Your task to perform on an android device: open app "Adobe Express: Graphic Design" Image 0: 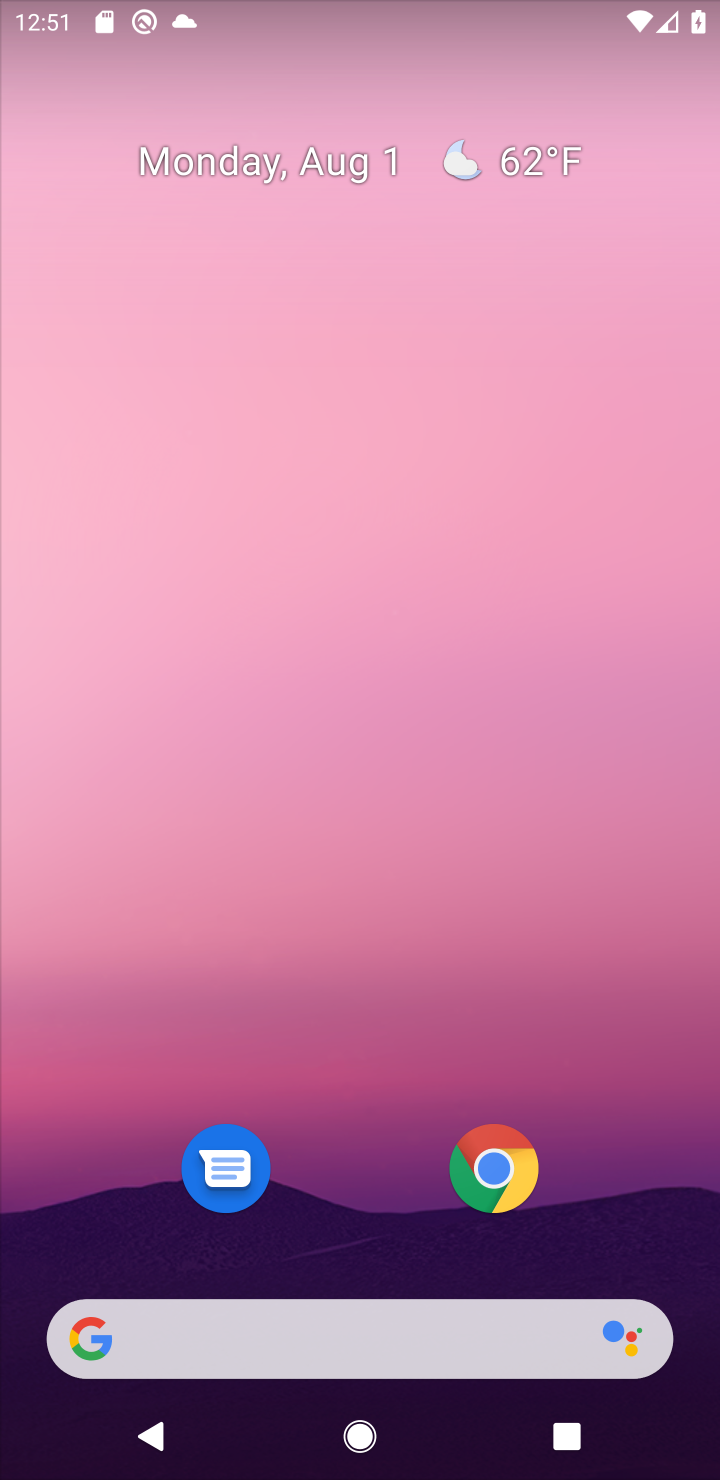
Step 0: press home button
Your task to perform on an android device: open app "Adobe Express: Graphic Design" Image 1: 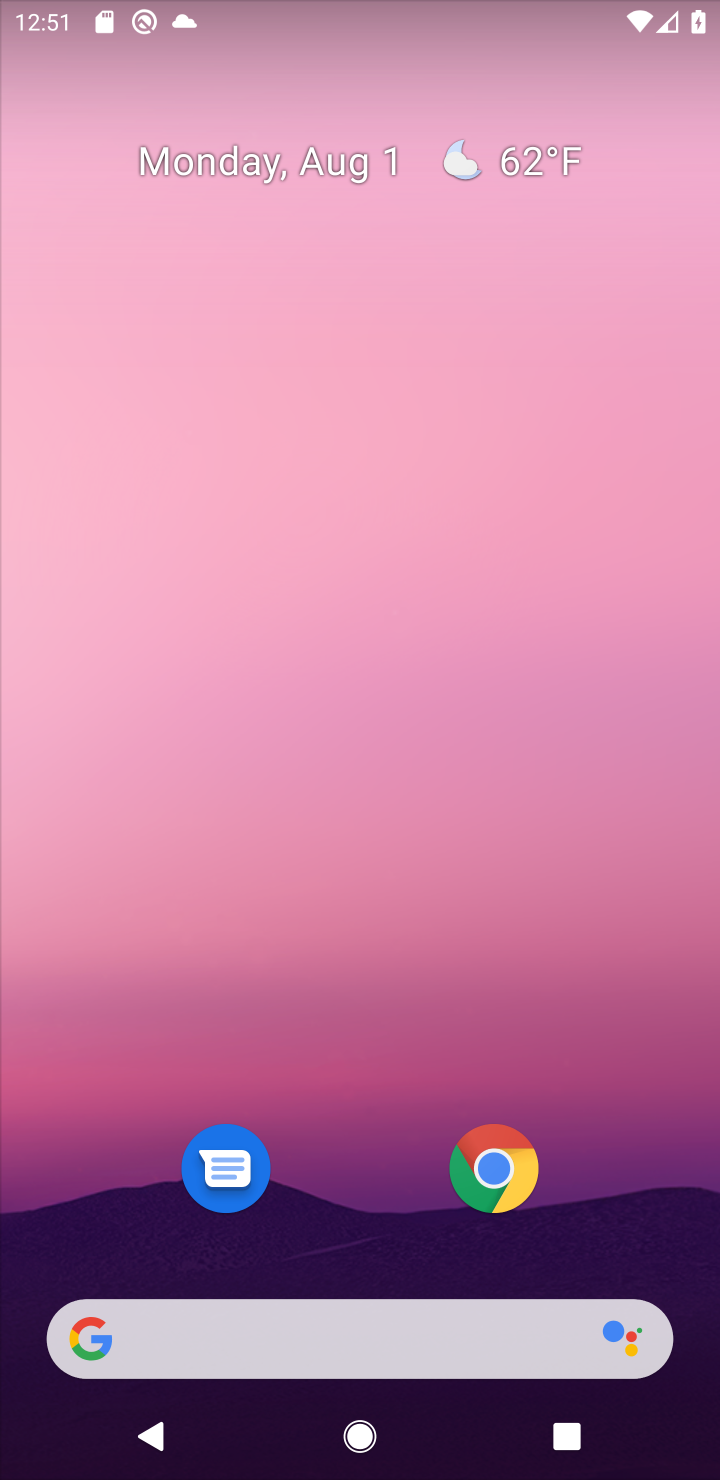
Step 1: drag from (401, 1465) to (403, 598)
Your task to perform on an android device: open app "Adobe Express: Graphic Design" Image 2: 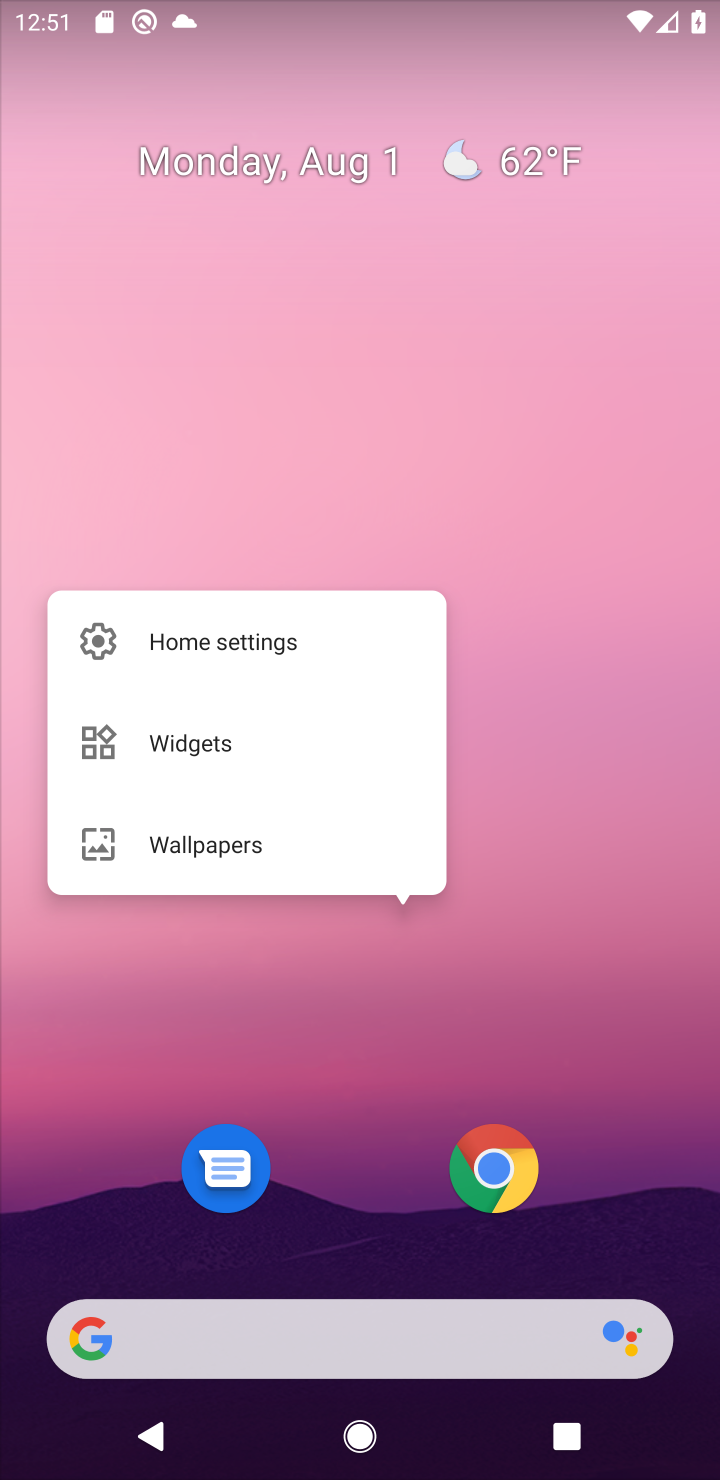
Step 2: press home button
Your task to perform on an android device: open app "Adobe Express: Graphic Design" Image 3: 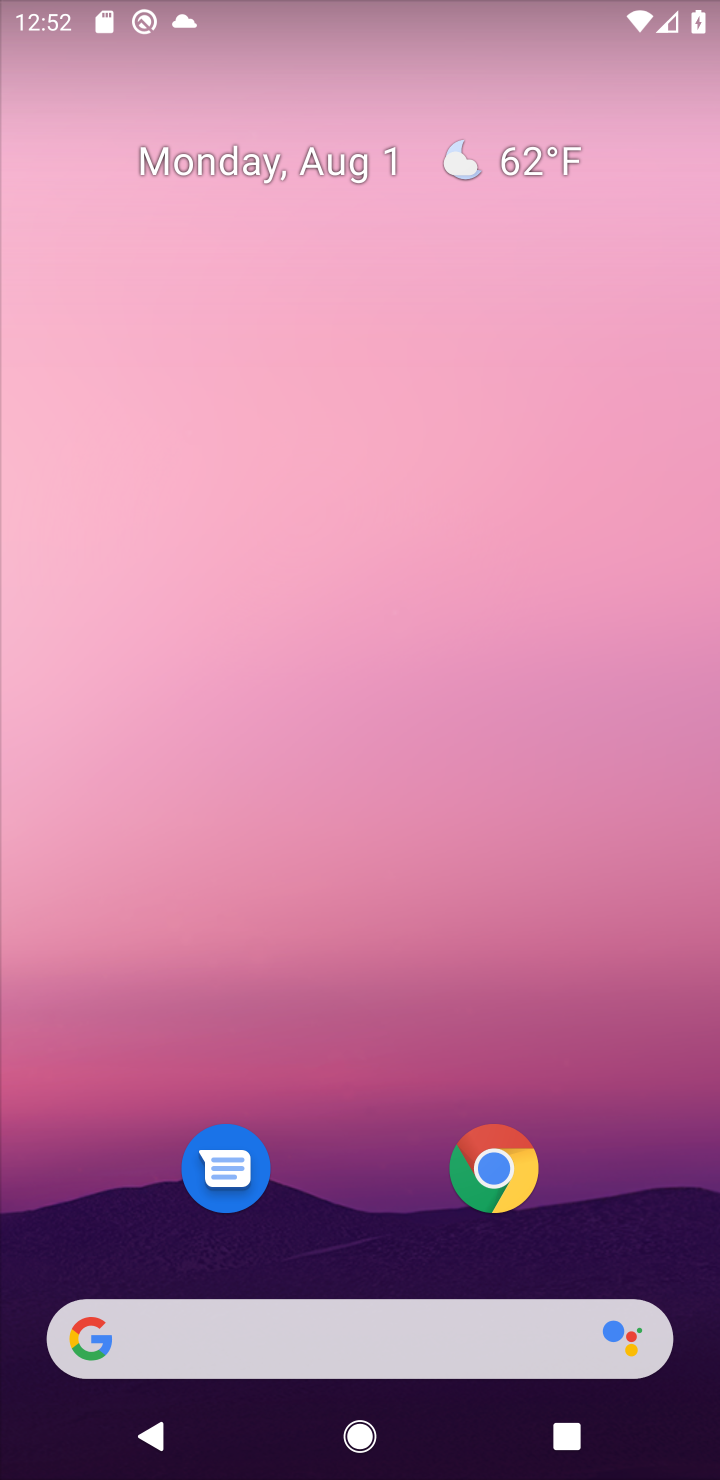
Step 3: drag from (394, 1455) to (337, 324)
Your task to perform on an android device: open app "Adobe Express: Graphic Design" Image 4: 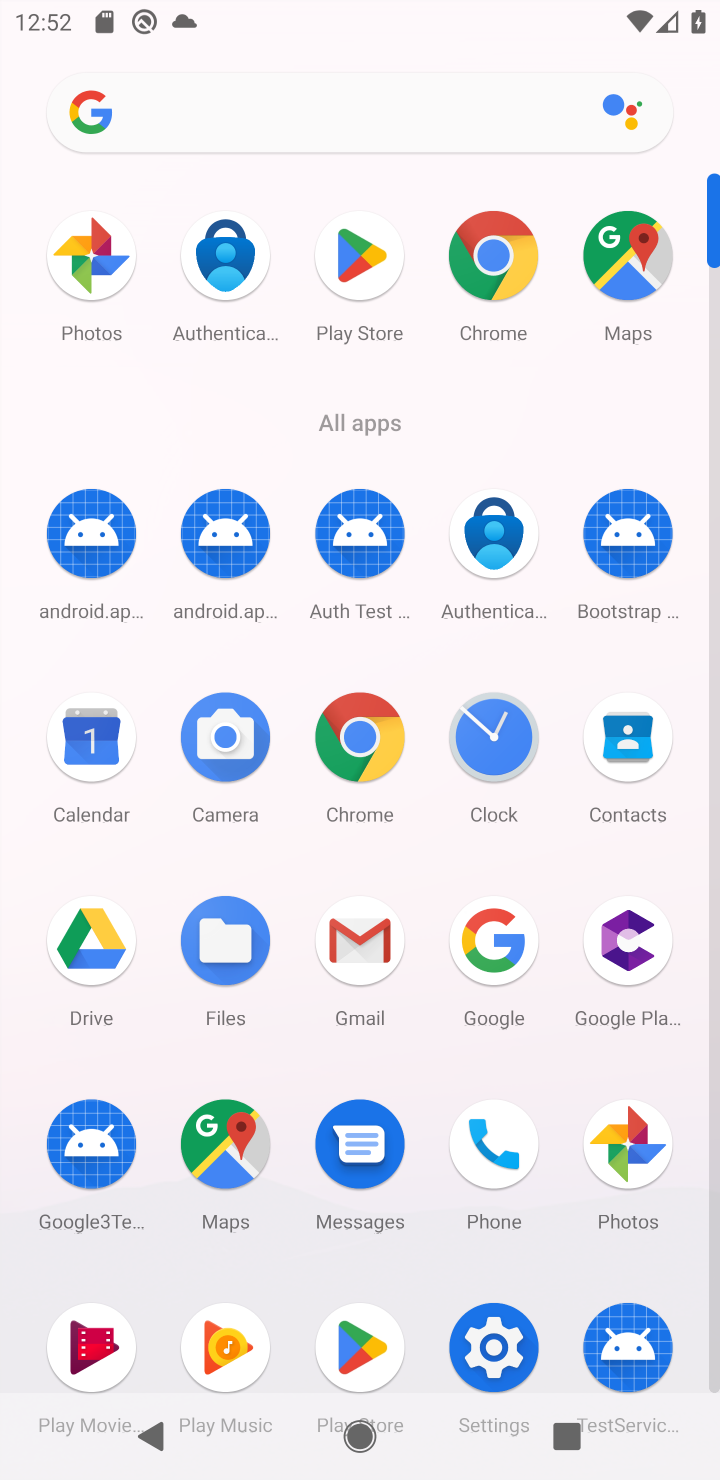
Step 4: click (338, 247)
Your task to perform on an android device: open app "Adobe Express: Graphic Design" Image 5: 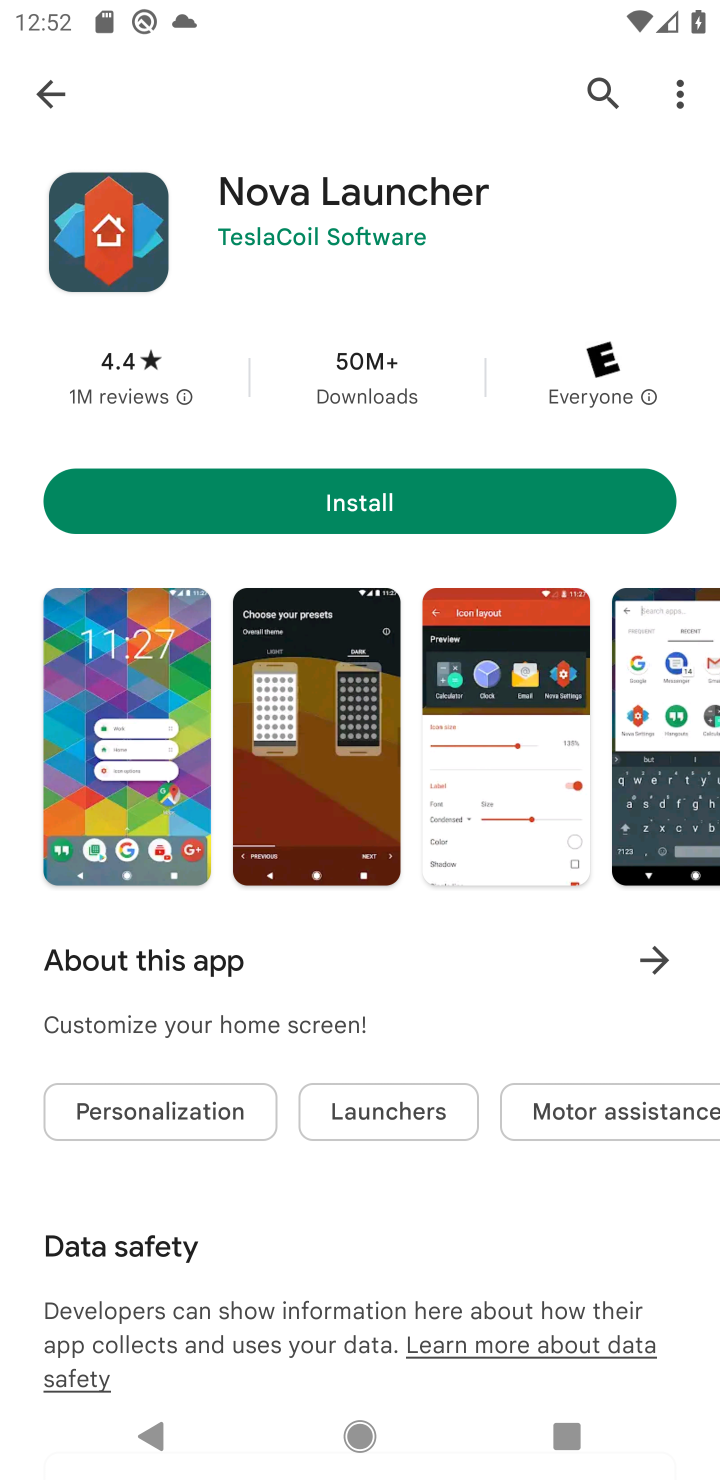
Step 5: click (596, 84)
Your task to perform on an android device: open app "Adobe Express: Graphic Design" Image 6: 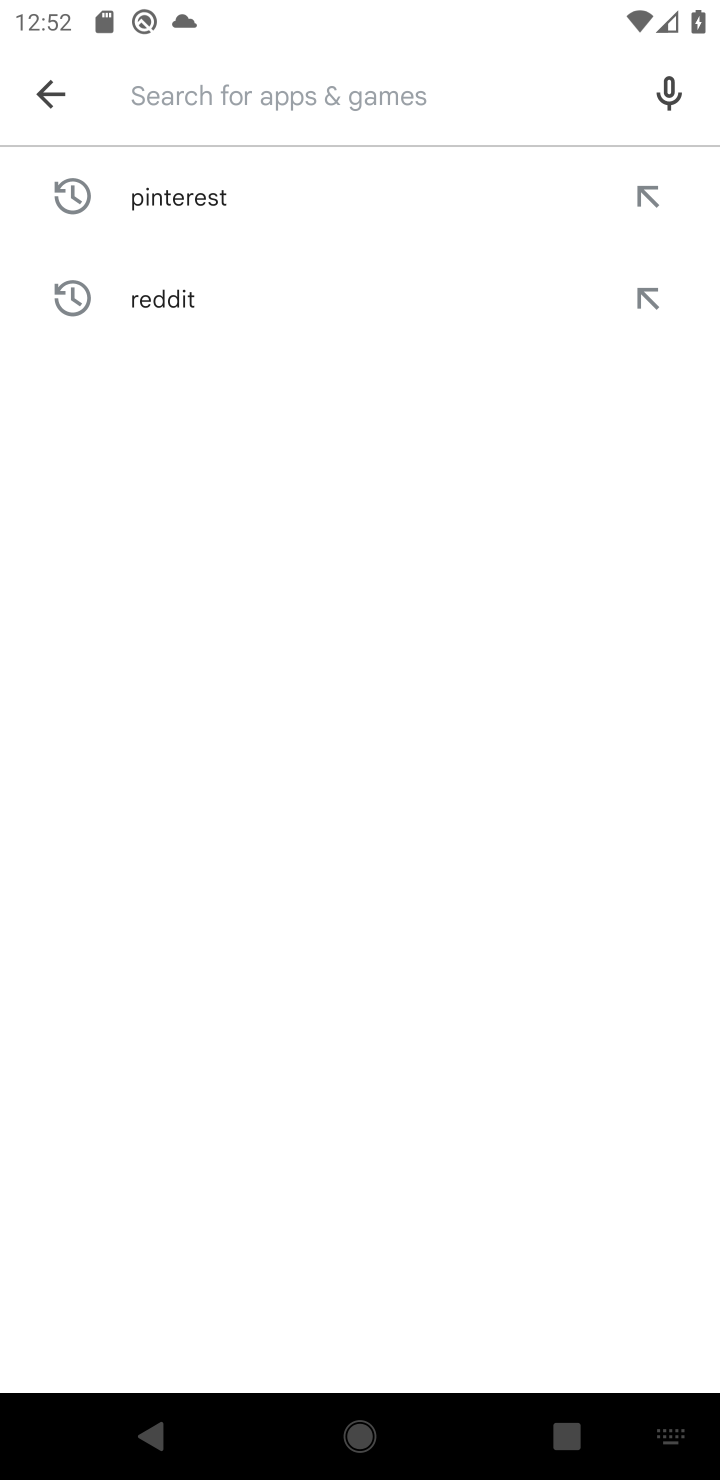
Step 6: type "Adobe Express"
Your task to perform on an android device: open app "Adobe Express: Graphic Design" Image 7: 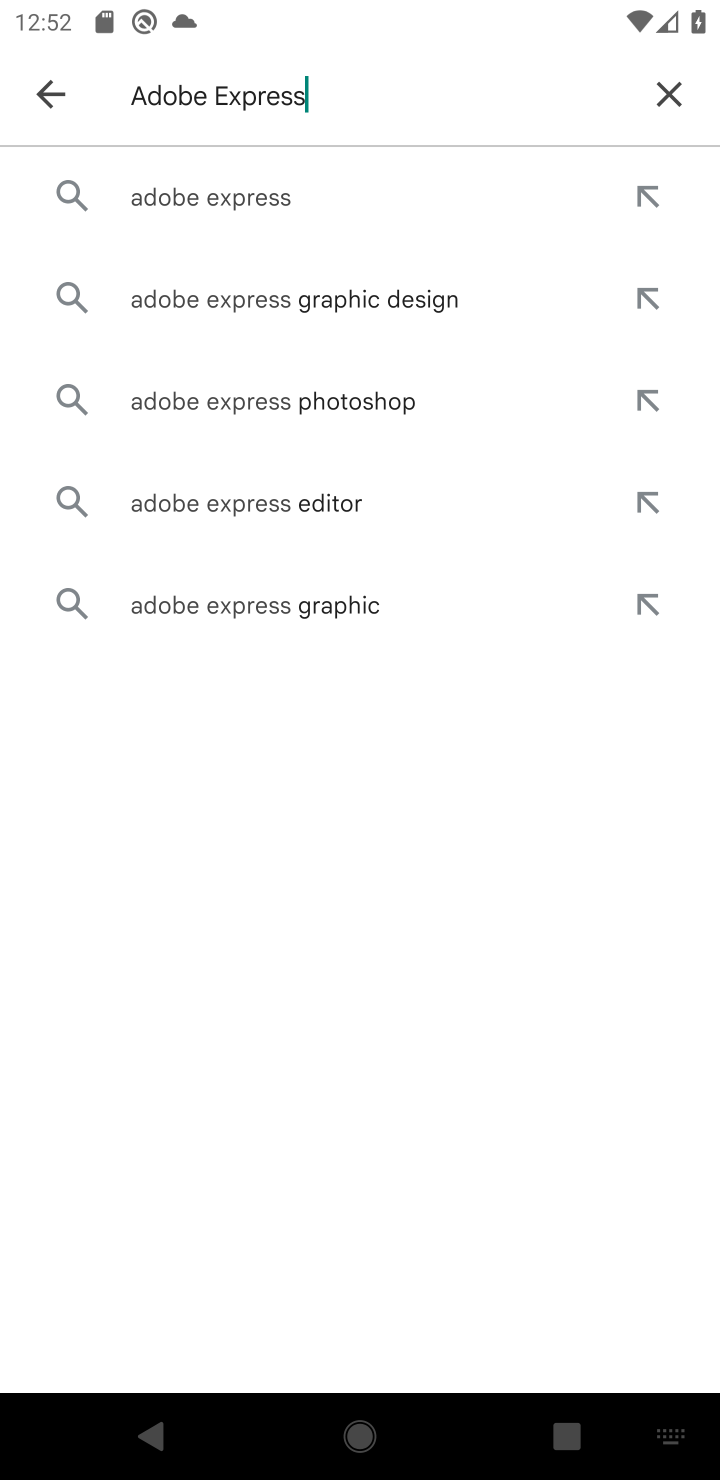
Step 7: click (263, 177)
Your task to perform on an android device: open app "Adobe Express: Graphic Design" Image 8: 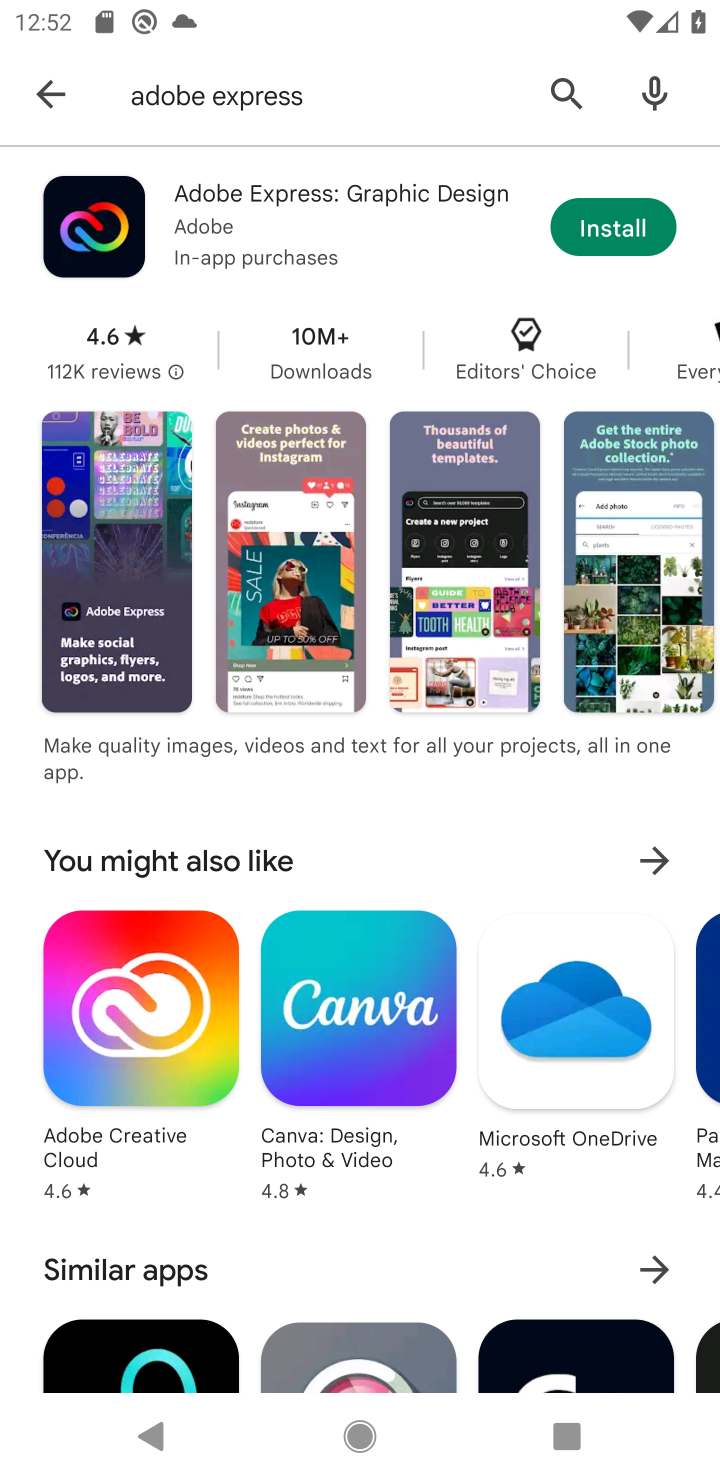
Step 8: task complete